Your task to perform on an android device: change notification settings in the gmail app Image 0: 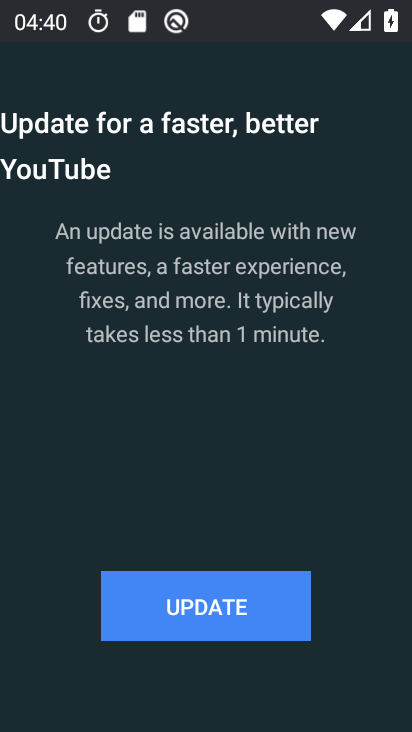
Step 0: press home button
Your task to perform on an android device: change notification settings in the gmail app Image 1: 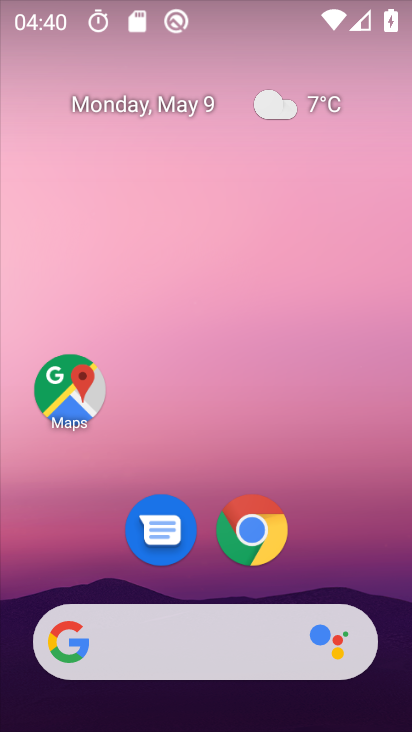
Step 1: drag from (155, 586) to (339, 36)
Your task to perform on an android device: change notification settings in the gmail app Image 2: 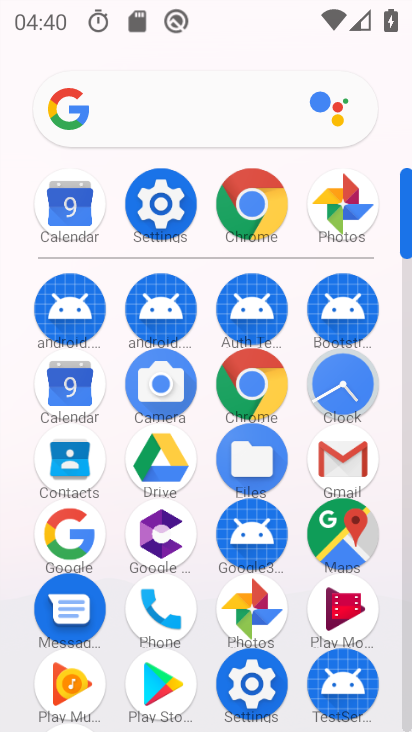
Step 2: click (336, 457)
Your task to perform on an android device: change notification settings in the gmail app Image 3: 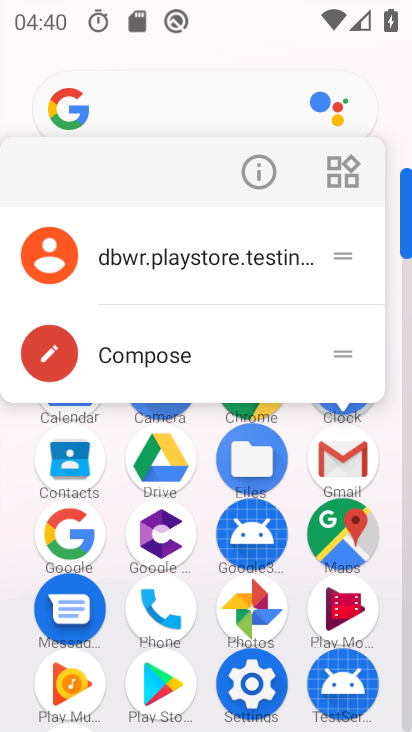
Step 3: click (243, 166)
Your task to perform on an android device: change notification settings in the gmail app Image 4: 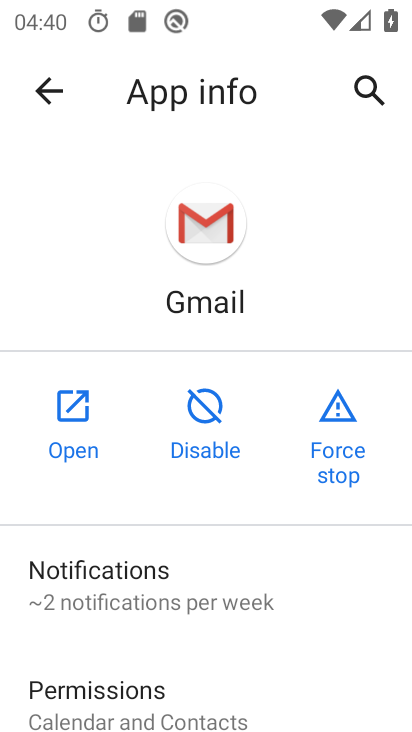
Step 4: click (111, 578)
Your task to perform on an android device: change notification settings in the gmail app Image 5: 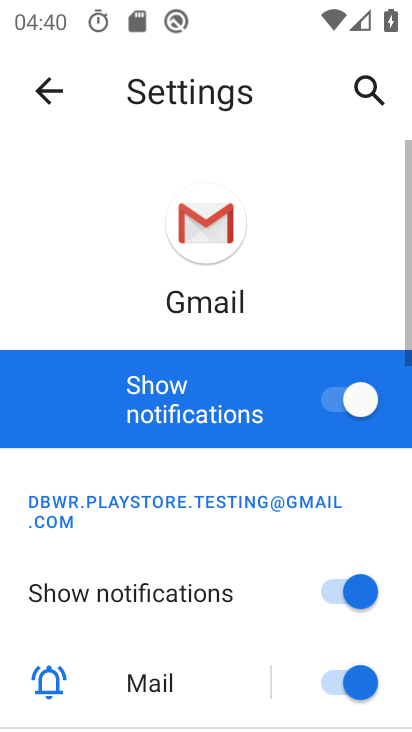
Step 5: drag from (200, 623) to (338, 174)
Your task to perform on an android device: change notification settings in the gmail app Image 6: 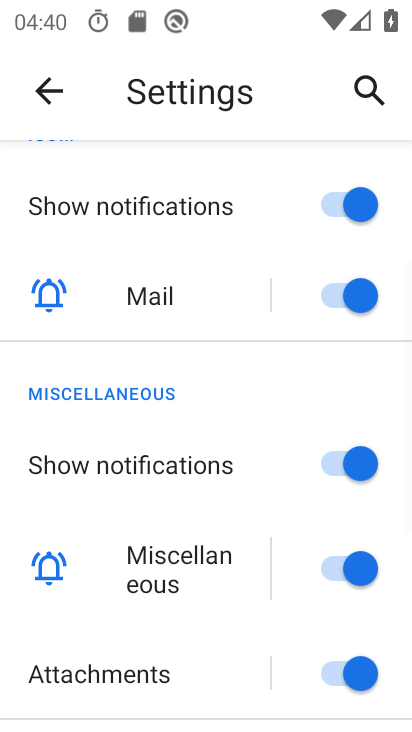
Step 6: click (360, 299)
Your task to perform on an android device: change notification settings in the gmail app Image 7: 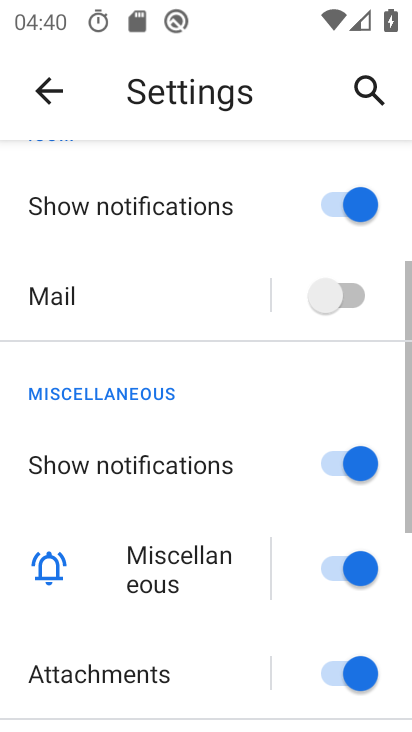
Step 7: task complete